Your task to perform on an android device: Open network settings Image 0: 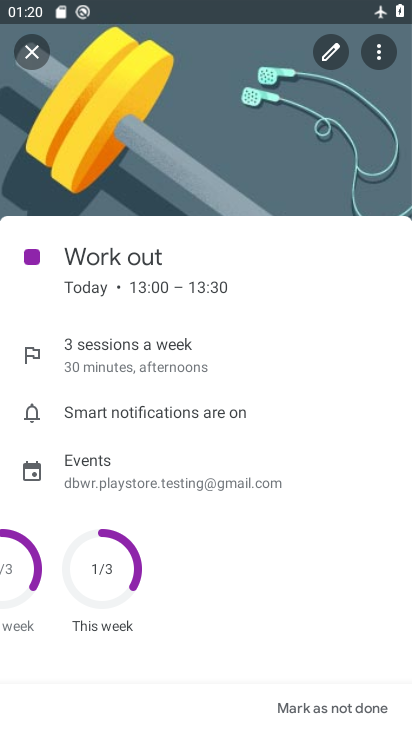
Step 0: press home button
Your task to perform on an android device: Open network settings Image 1: 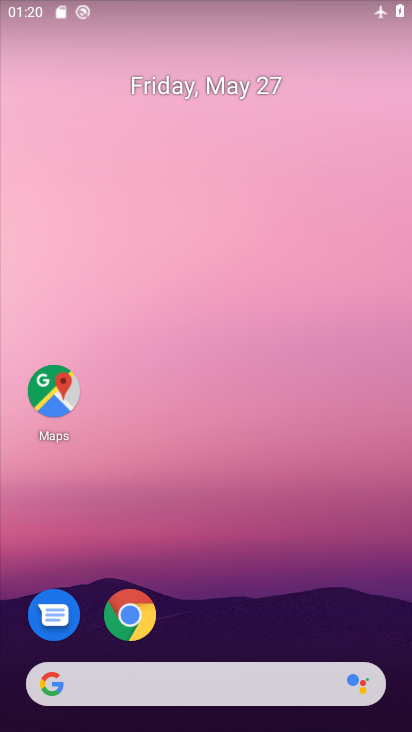
Step 1: click (410, 580)
Your task to perform on an android device: Open network settings Image 2: 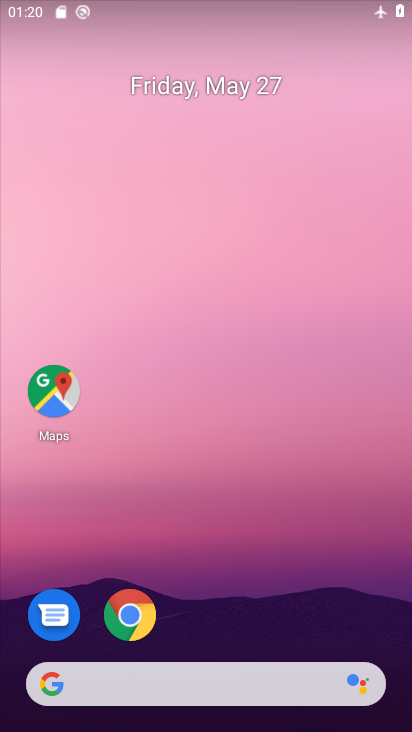
Step 2: drag from (376, 614) to (374, 236)
Your task to perform on an android device: Open network settings Image 3: 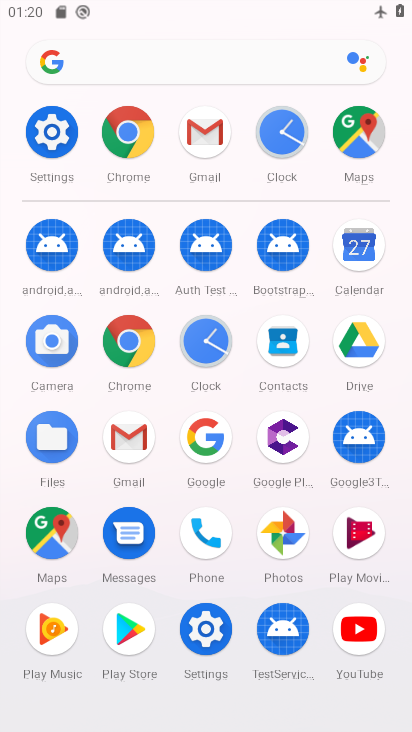
Step 3: click (213, 638)
Your task to perform on an android device: Open network settings Image 4: 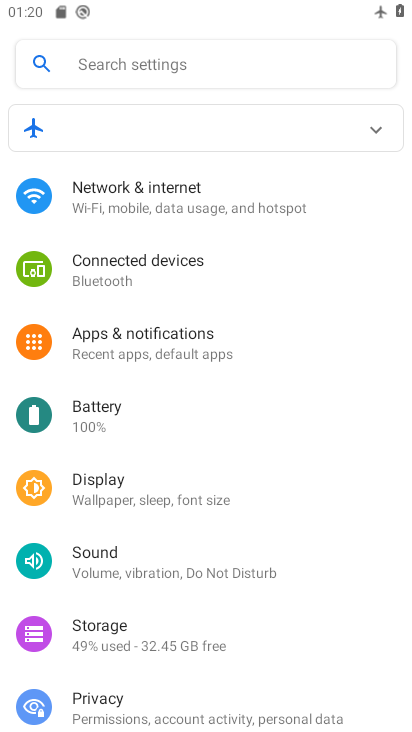
Step 4: drag from (319, 593) to (339, 490)
Your task to perform on an android device: Open network settings Image 5: 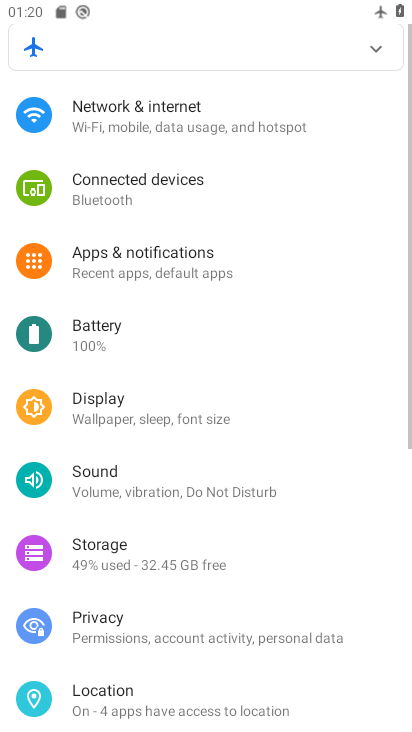
Step 5: click (342, 561)
Your task to perform on an android device: Open network settings Image 6: 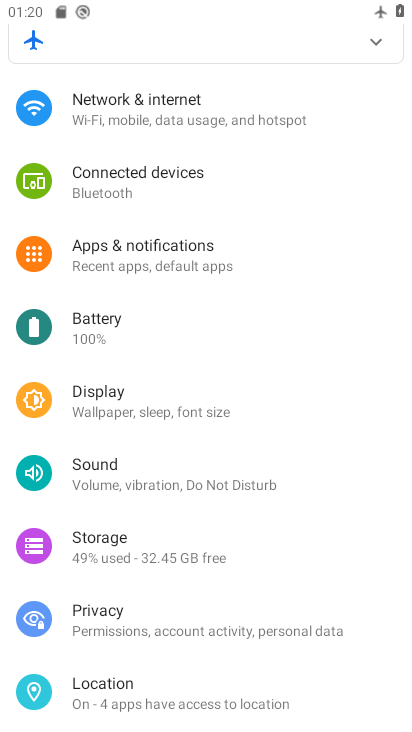
Step 6: drag from (342, 658) to (351, 539)
Your task to perform on an android device: Open network settings Image 7: 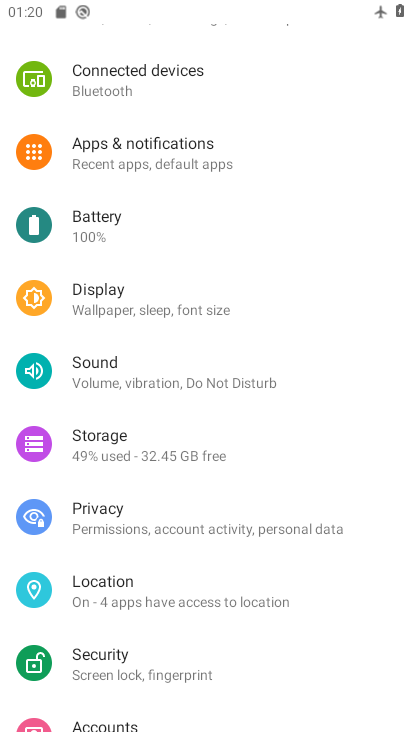
Step 7: drag from (351, 655) to (355, 571)
Your task to perform on an android device: Open network settings Image 8: 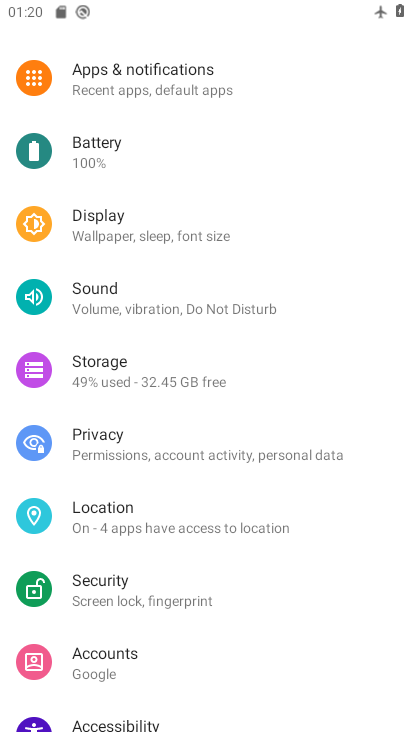
Step 8: drag from (354, 650) to (354, 568)
Your task to perform on an android device: Open network settings Image 9: 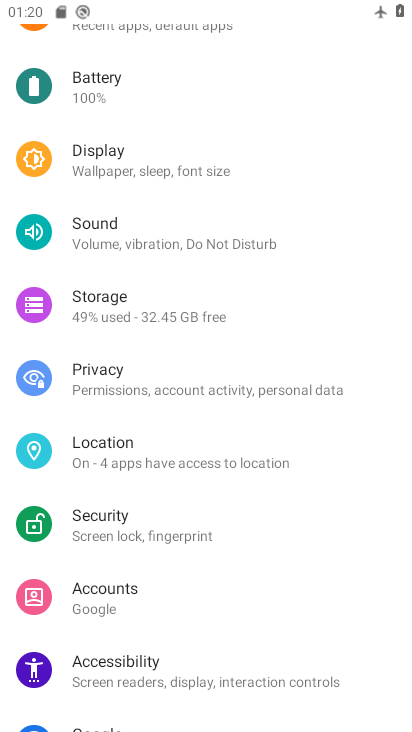
Step 9: drag from (332, 618) to (335, 520)
Your task to perform on an android device: Open network settings Image 10: 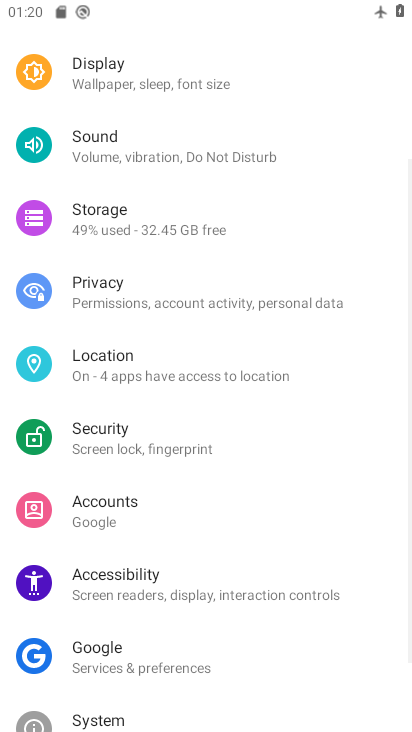
Step 10: drag from (361, 623) to (362, 553)
Your task to perform on an android device: Open network settings Image 11: 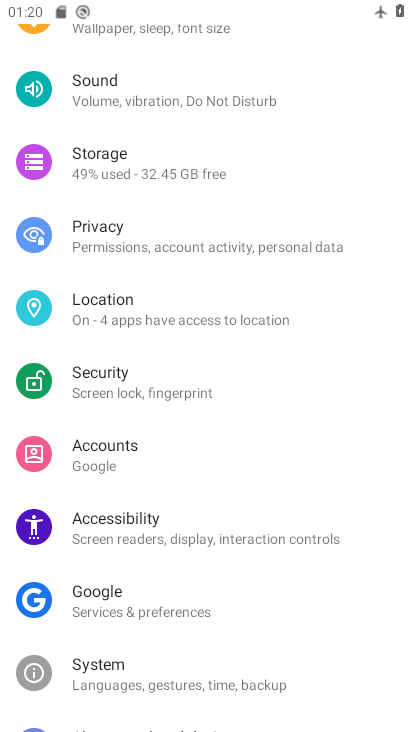
Step 11: drag from (362, 597) to (364, 541)
Your task to perform on an android device: Open network settings Image 12: 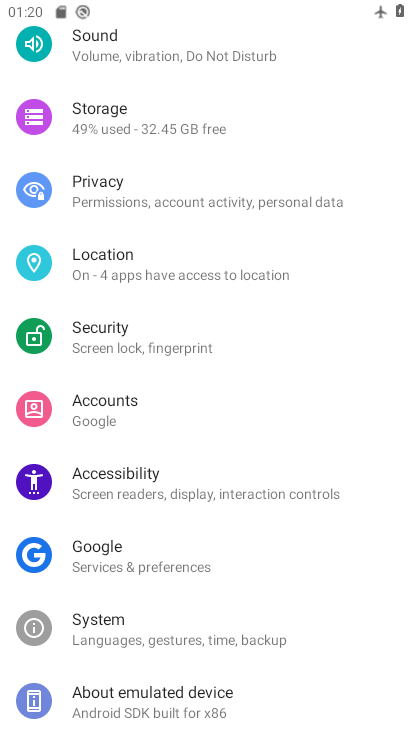
Step 12: drag from (357, 588) to (359, 554)
Your task to perform on an android device: Open network settings Image 13: 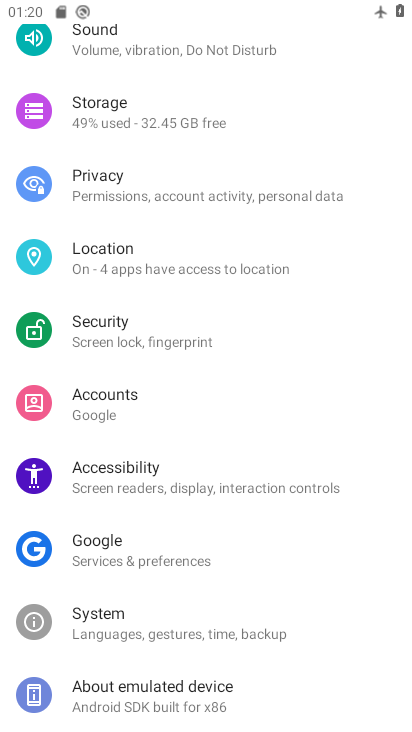
Step 13: drag from (352, 296) to (350, 371)
Your task to perform on an android device: Open network settings Image 14: 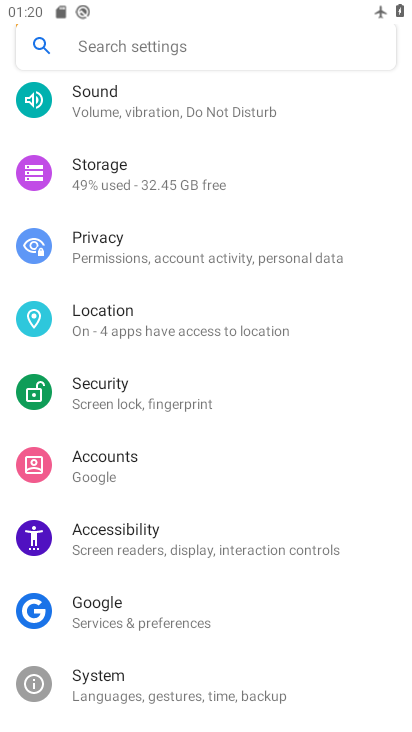
Step 14: drag from (356, 229) to (363, 322)
Your task to perform on an android device: Open network settings Image 15: 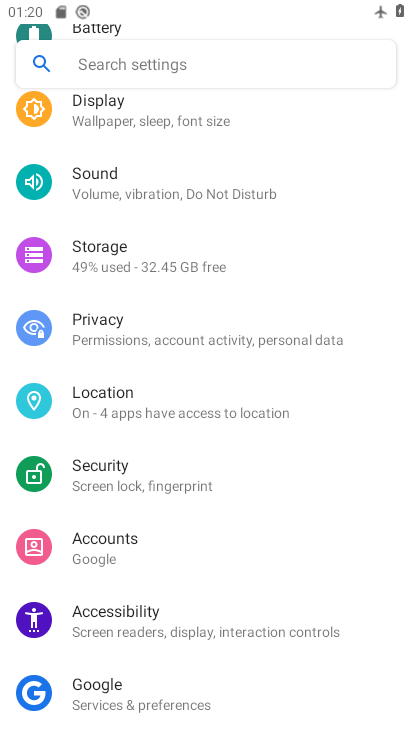
Step 15: drag from (364, 231) to (366, 317)
Your task to perform on an android device: Open network settings Image 16: 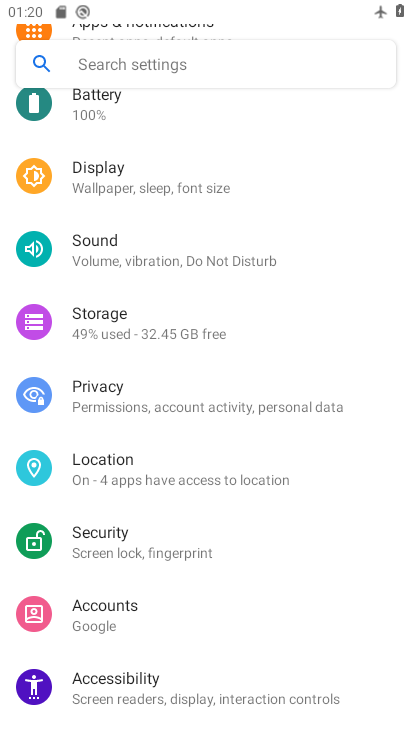
Step 16: drag from (371, 250) to (371, 343)
Your task to perform on an android device: Open network settings Image 17: 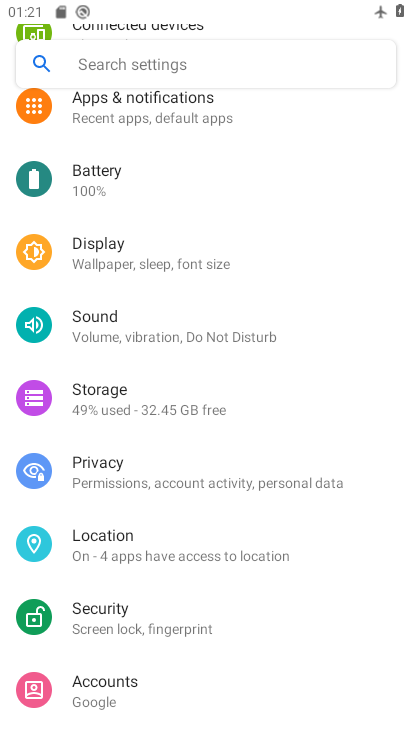
Step 17: drag from (366, 297) to (366, 345)
Your task to perform on an android device: Open network settings Image 18: 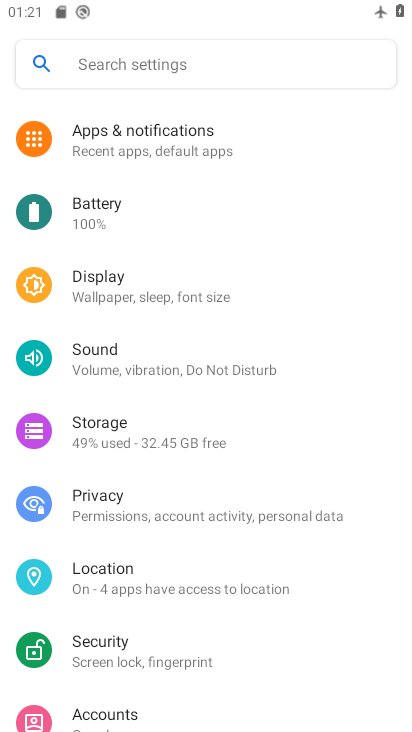
Step 18: click (366, 312)
Your task to perform on an android device: Open network settings Image 19: 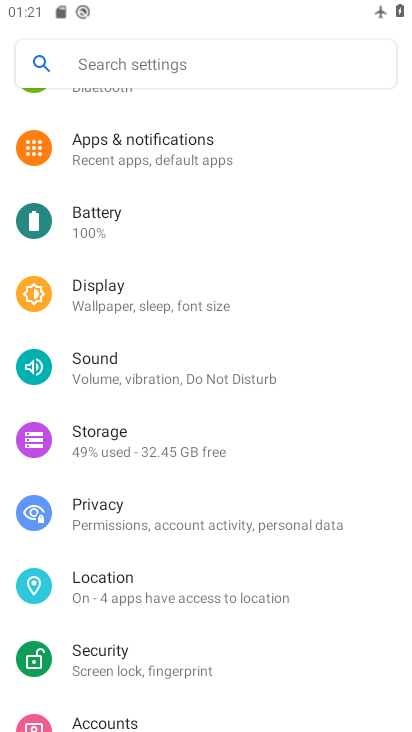
Step 19: drag from (330, 192) to (347, 340)
Your task to perform on an android device: Open network settings Image 20: 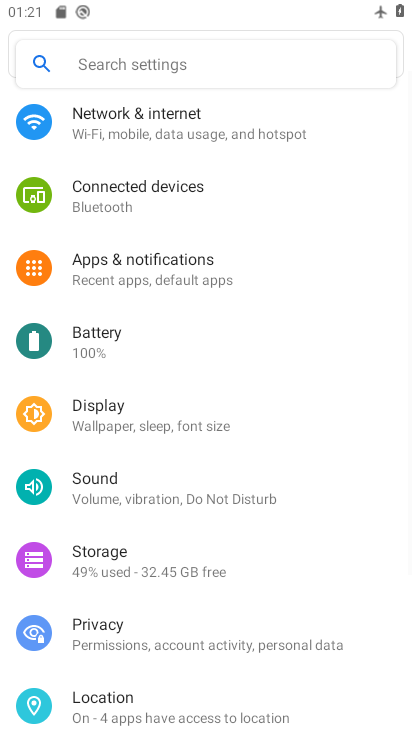
Step 20: drag from (341, 195) to (342, 299)
Your task to perform on an android device: Open network settings Image 21: 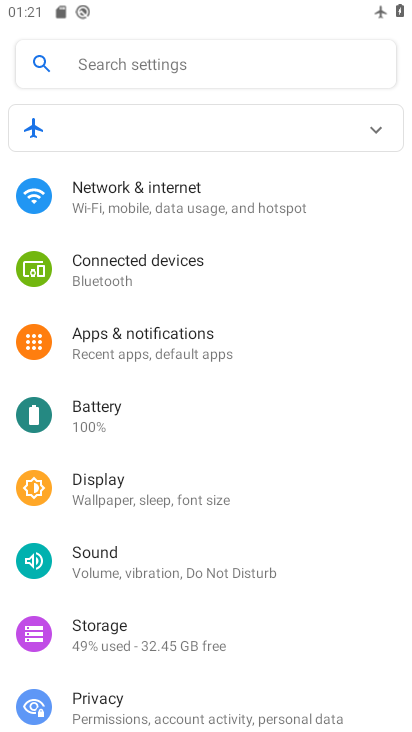
Step 21: drag from (350, 184) to (355, 348)
Your task to perform on an android device: Open network settings Image 22: 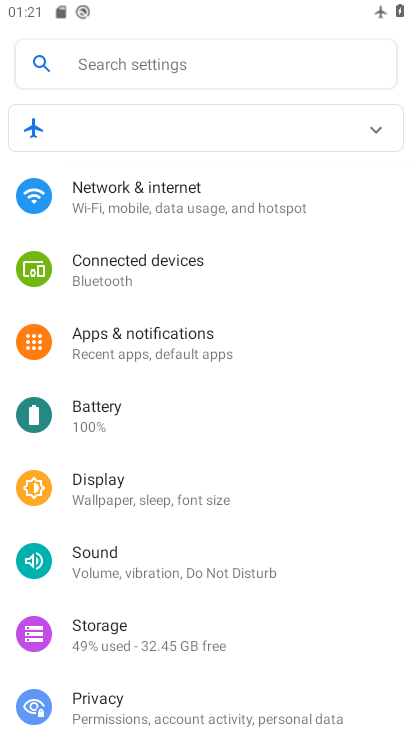
Step 22: click (265, 202)
Your task to perform on an android device: Open network settings Image 23: 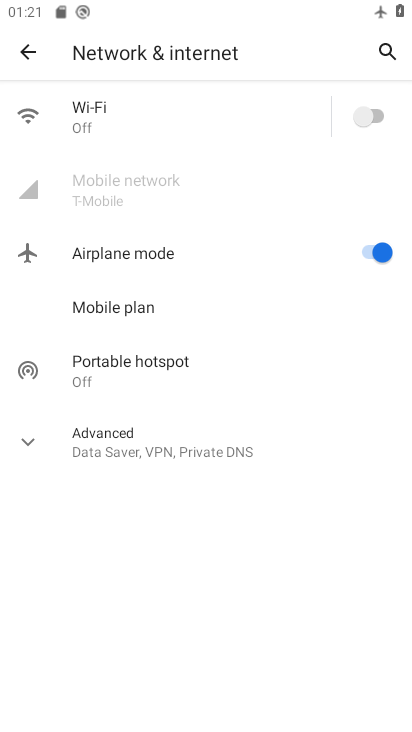
Step 23: task complete